Your task to perform on an android device: turn off wifi Image 0: 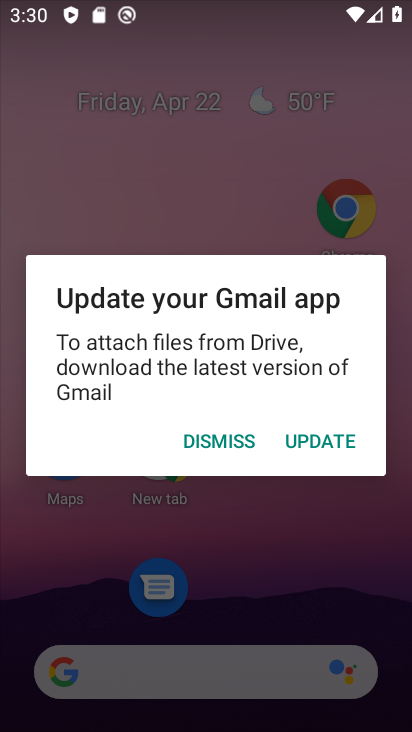
Step 0: drag from (269, 14) to (57, 516)
Your task to perform on an android device: turn off wifi Image 1: 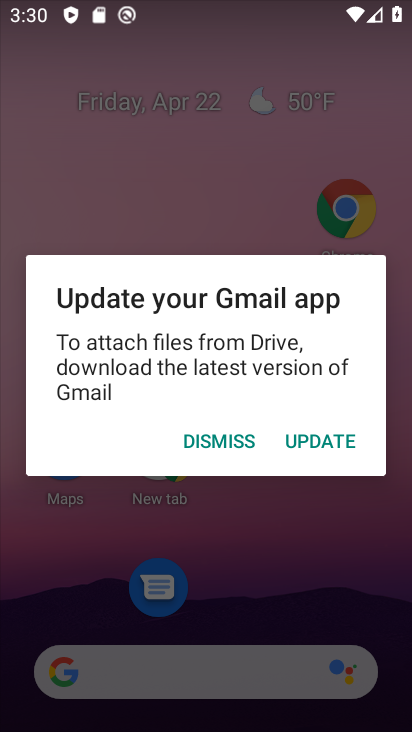
Step 1: drag from (158, 25) to (220, 543)
Your task to perform on an android device: turn off wifi Image 2: 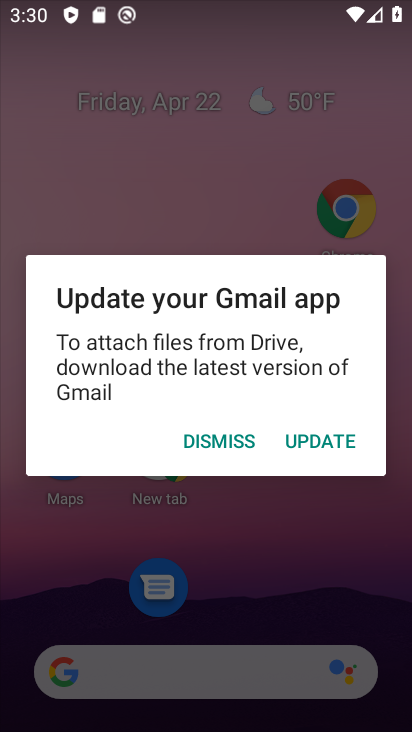
Step 2: drag from (214, 22) to (231, 453)
Your task to perform on an android device: turn off wifi Image 3: 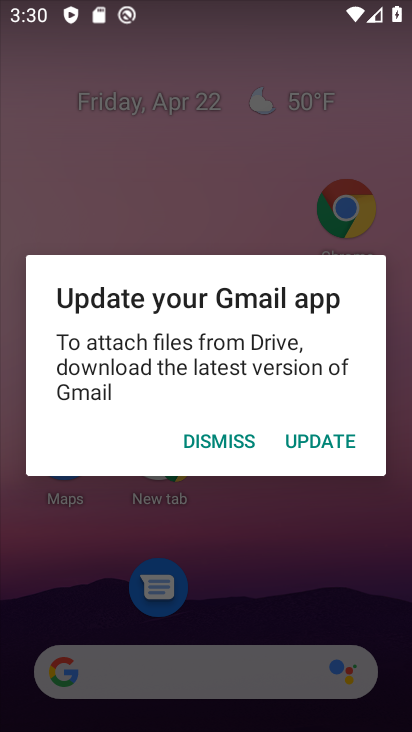
Step 3: drag from (205, 6) to (196, 551)
Your task to perform on an android device: turn off wifi Image 4: 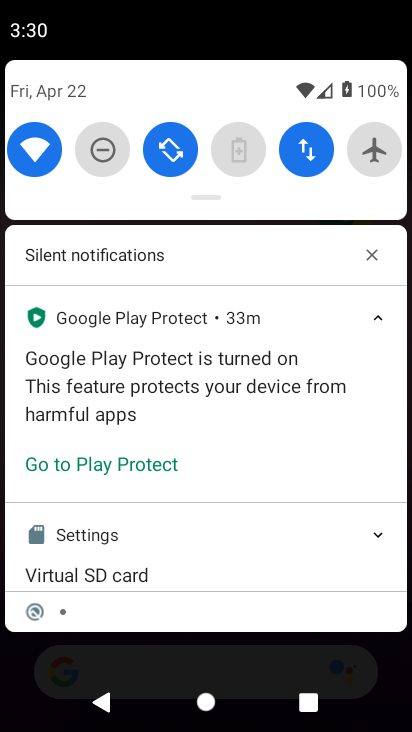
Step 4: click (34, 149)
Your task to perform on an android device: turn off wifi Image 5: 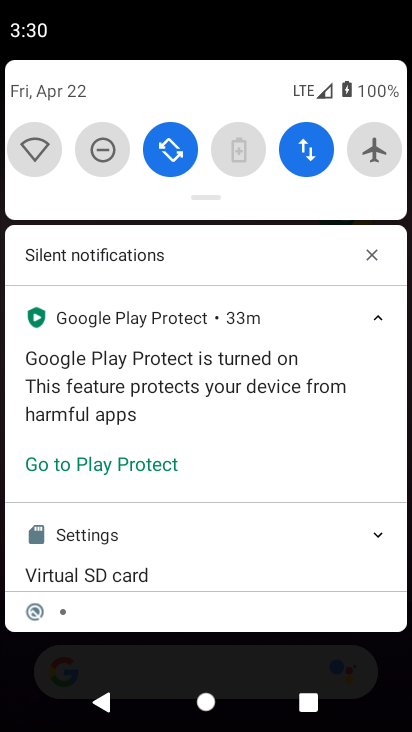
Step 5: task complete